Your task to perform on an android device: check storage Image 0: 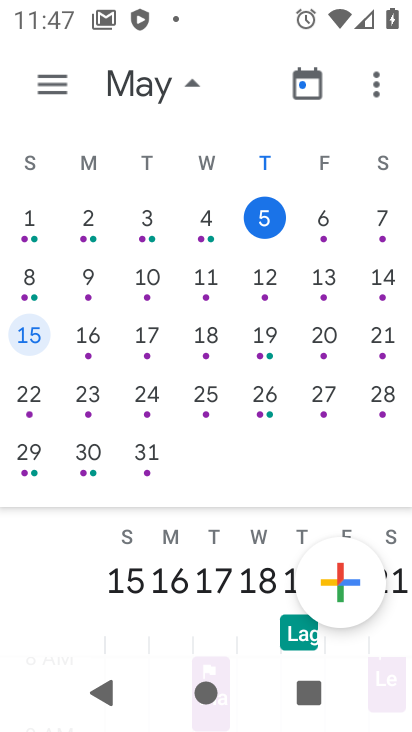
Step 0: press home button
Your task to perform on an android device: check storage Image 1: 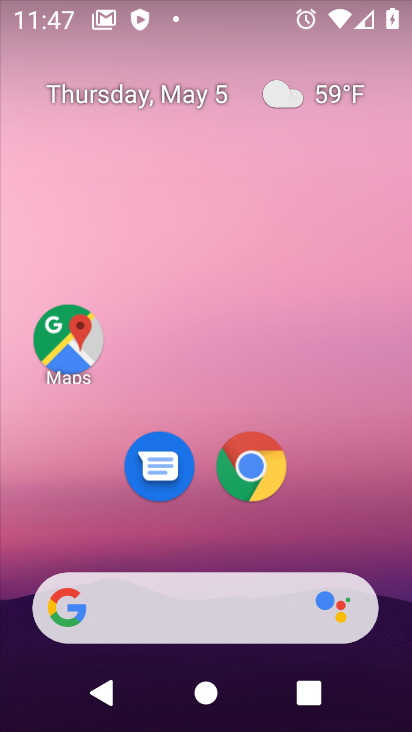
Step 1: drag from (191, 553) to (199, 101)
Your task to perform on an android device: check storage Image 2: 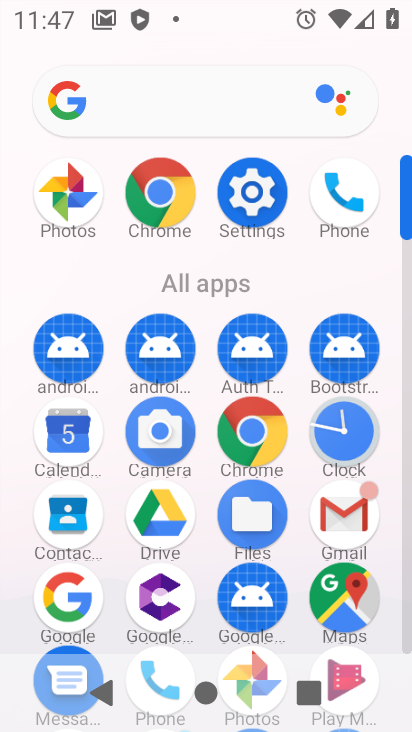
Step 2: click (255, 191)
Your task to perform on an android device: check storage Image 3: 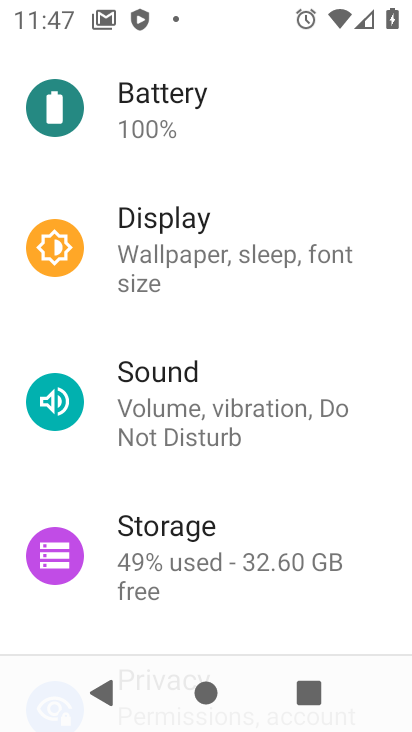
Step 3: click (177, 560)
Your task to perform on an android device: check storage Image 4: 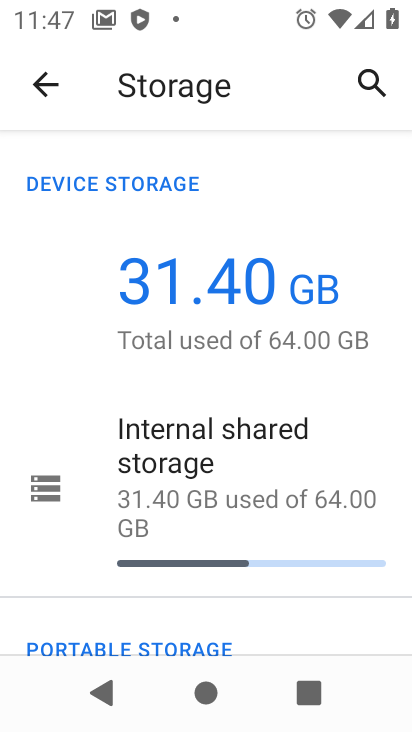
Step 4: task complete